Your task to perform on an android device: Show the shopping cart on target.com. Add "dell alienware" to the cart on target.com, then select checkout. Image 0: 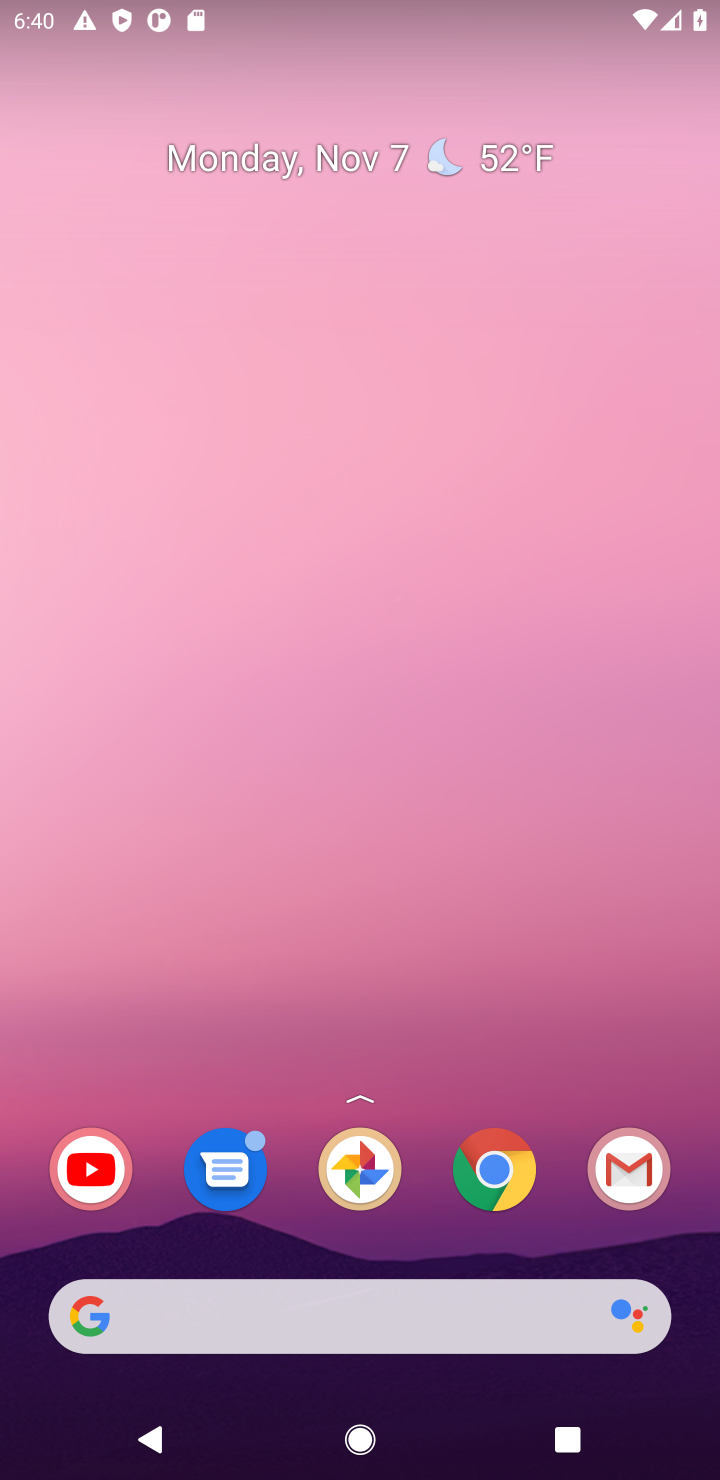
Step 0: click (485, 1162)
Your task to perform on an android device: Show the shopping cart on target.com. Add "dell alienware" to the cart on target.com, then select checkout. Image 1: 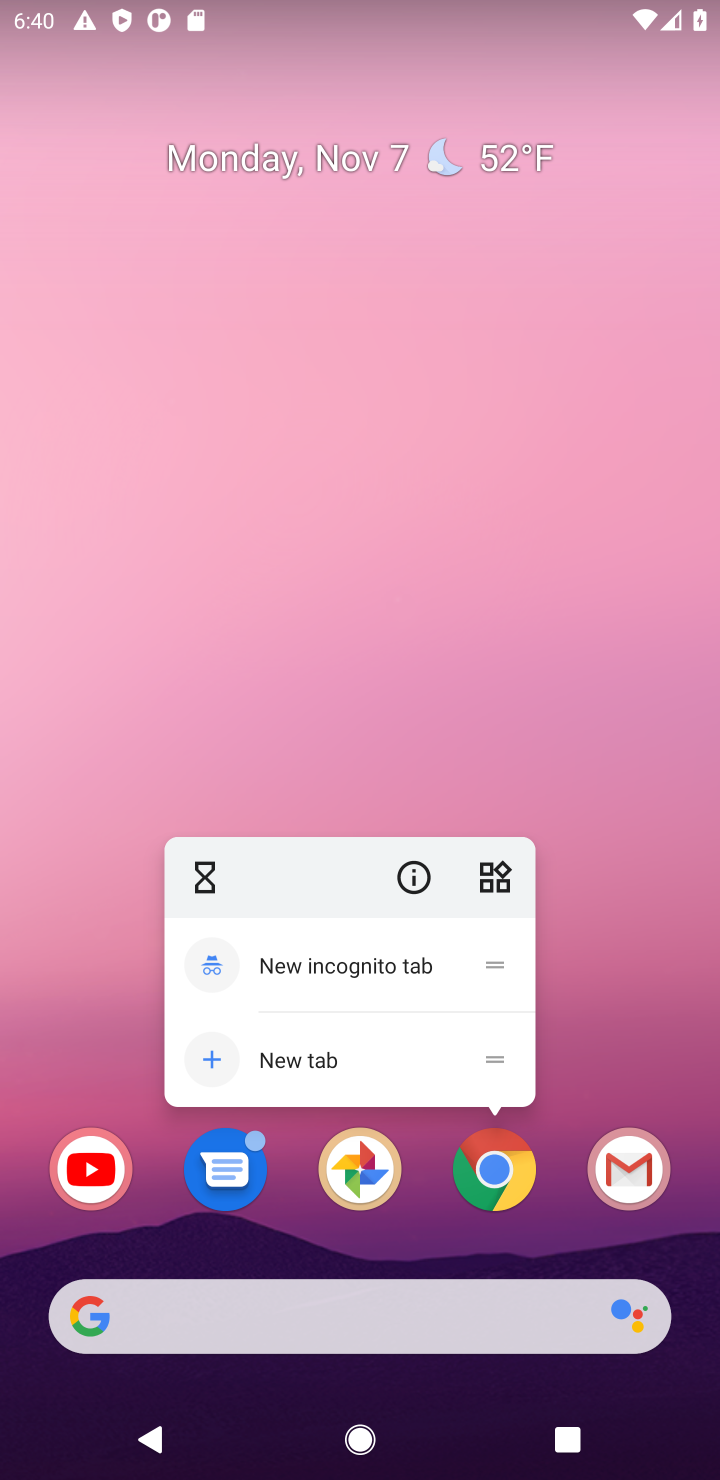
Step 1: click (503, 1163)
Your task to perform on an android device: Show the shopping cart on target.com. Add "dell alienware" to the cart on target.com, then select checkout. Image 2: 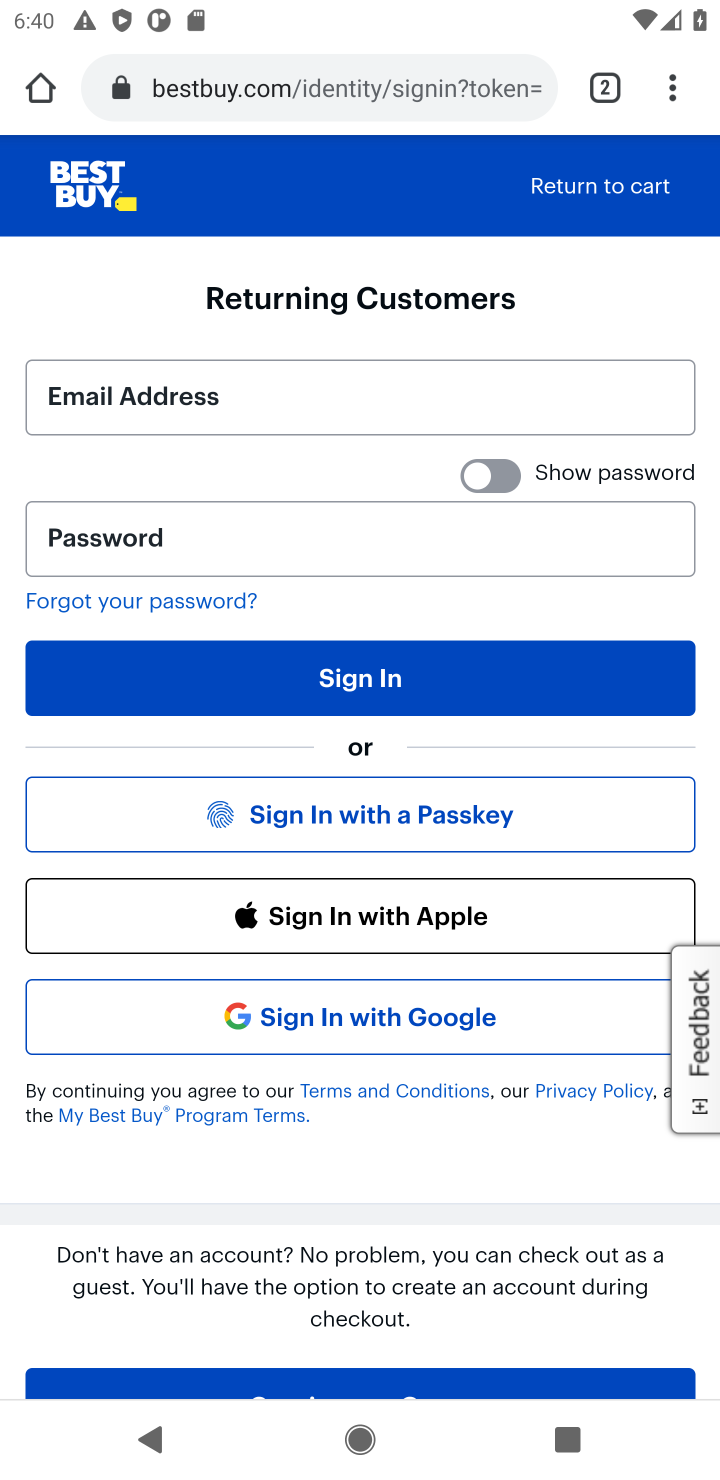
Step 2: click (560, 185)
Your task to perform on an android device: Show the shopping cart on target.com. Add "dell alienware" to the cart on target.com, then select checkout. Image 3: 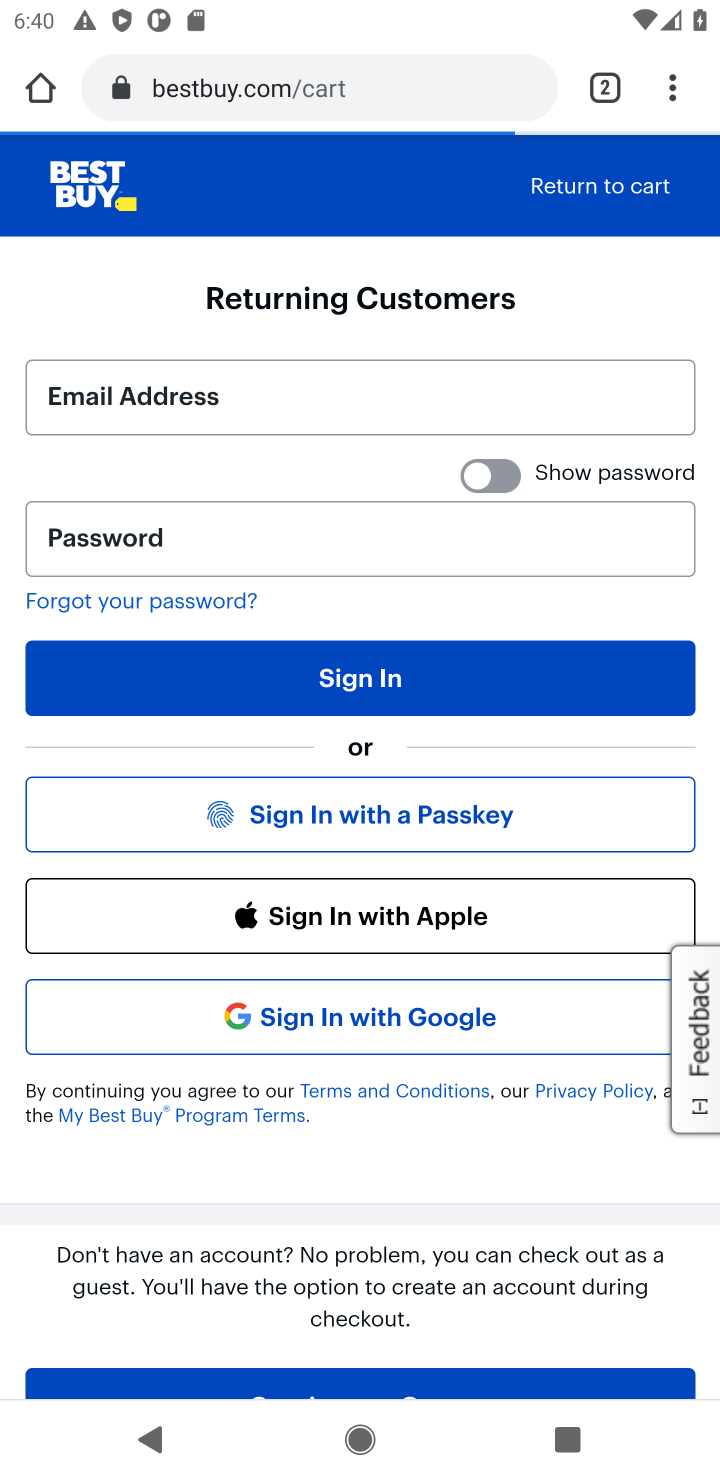
Step 3: click (604, 78)
Your task to perform on an android device: Show the shopping cart on target.com. Add "dell alienware" to the cart on target.com, then select checkout. Image 4: 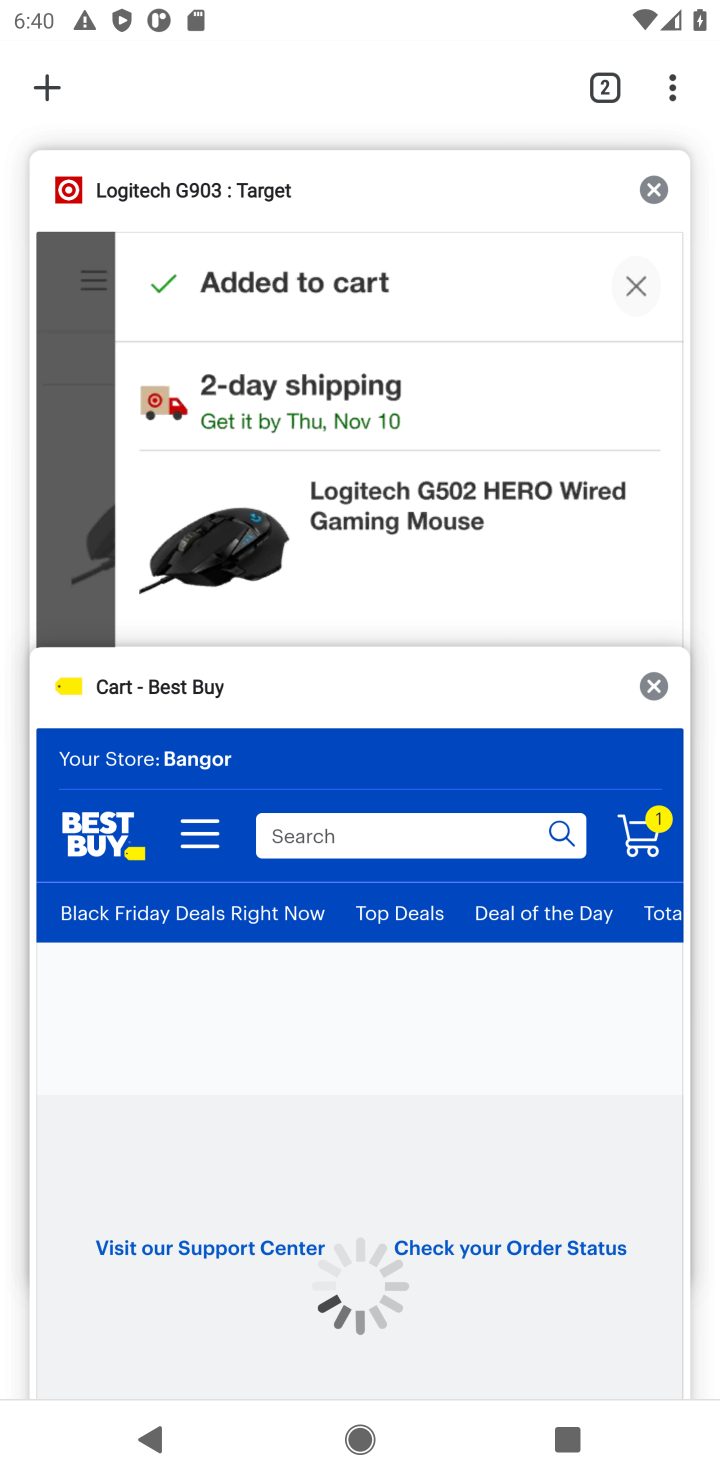
Step 4: click (191, 439)
Your task to perform on an android device: Show the shopping cart on target.com. Add "dell alienware" to the cart on target.com, then select checkout. Image 5: 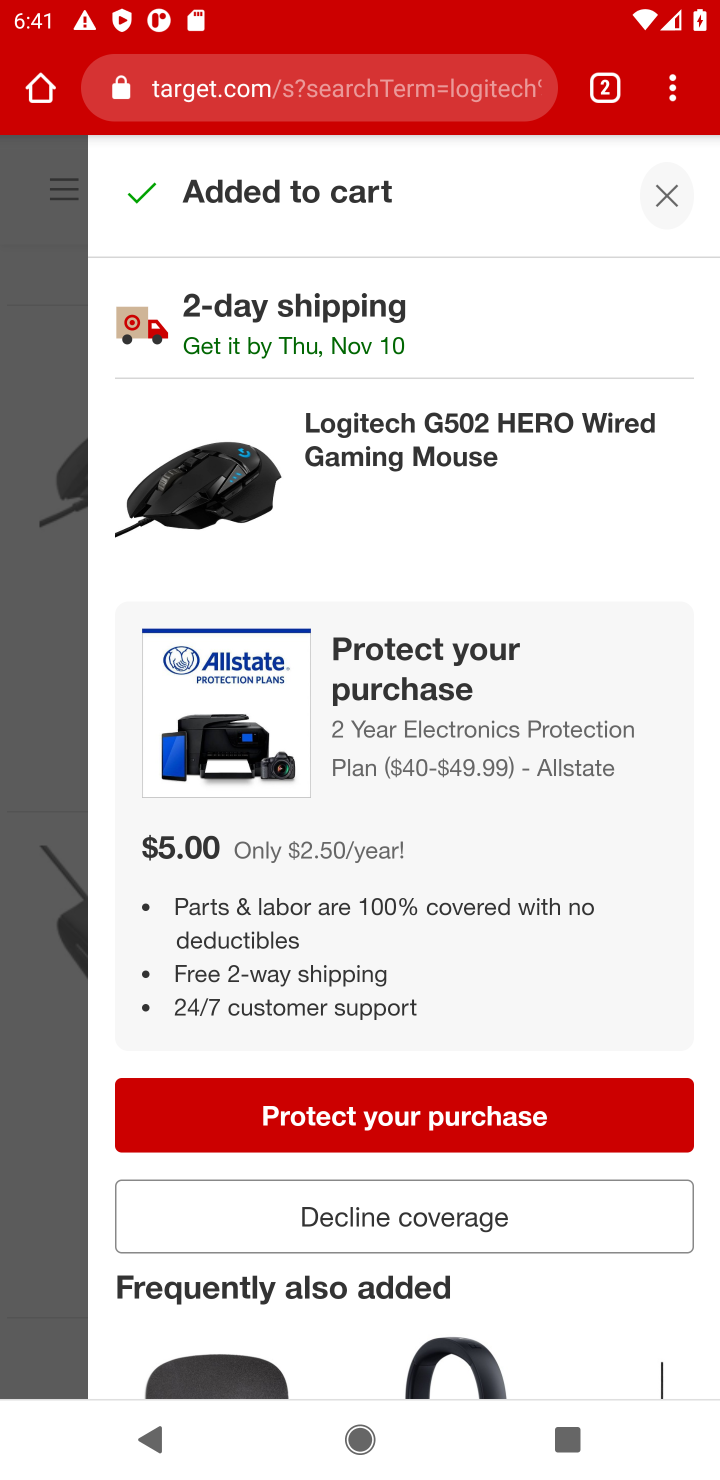
Step 5: click (663, 197)
Your task to perform on an android device: Show the shopping cart on target.com. Add "dell alienware" to the cart on target.com, then select checkout. Image 6: 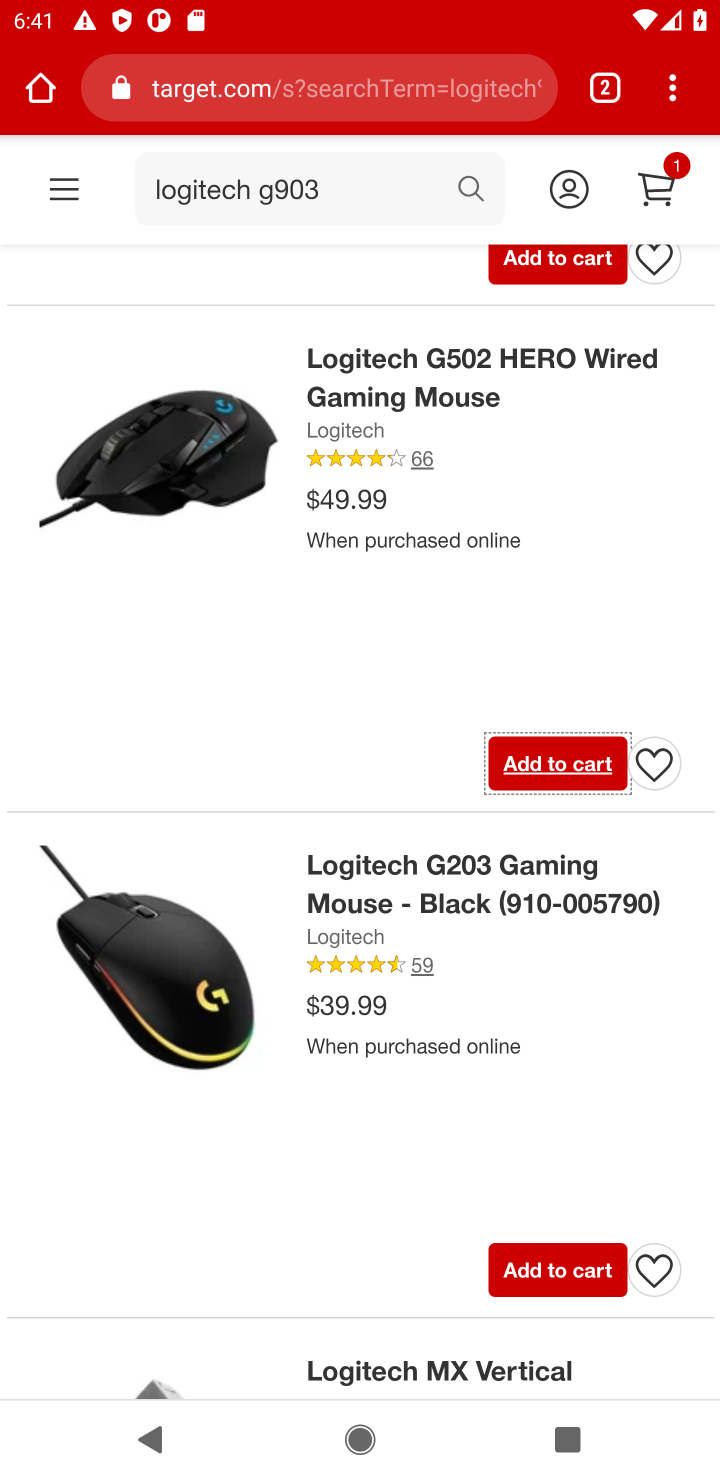
Step 6: click (403, 197)
Your task to perform on an android device: Show the shopping cart on target.com. Add "dell alienware" to the cart on target.com, then select checkout. Image 7: 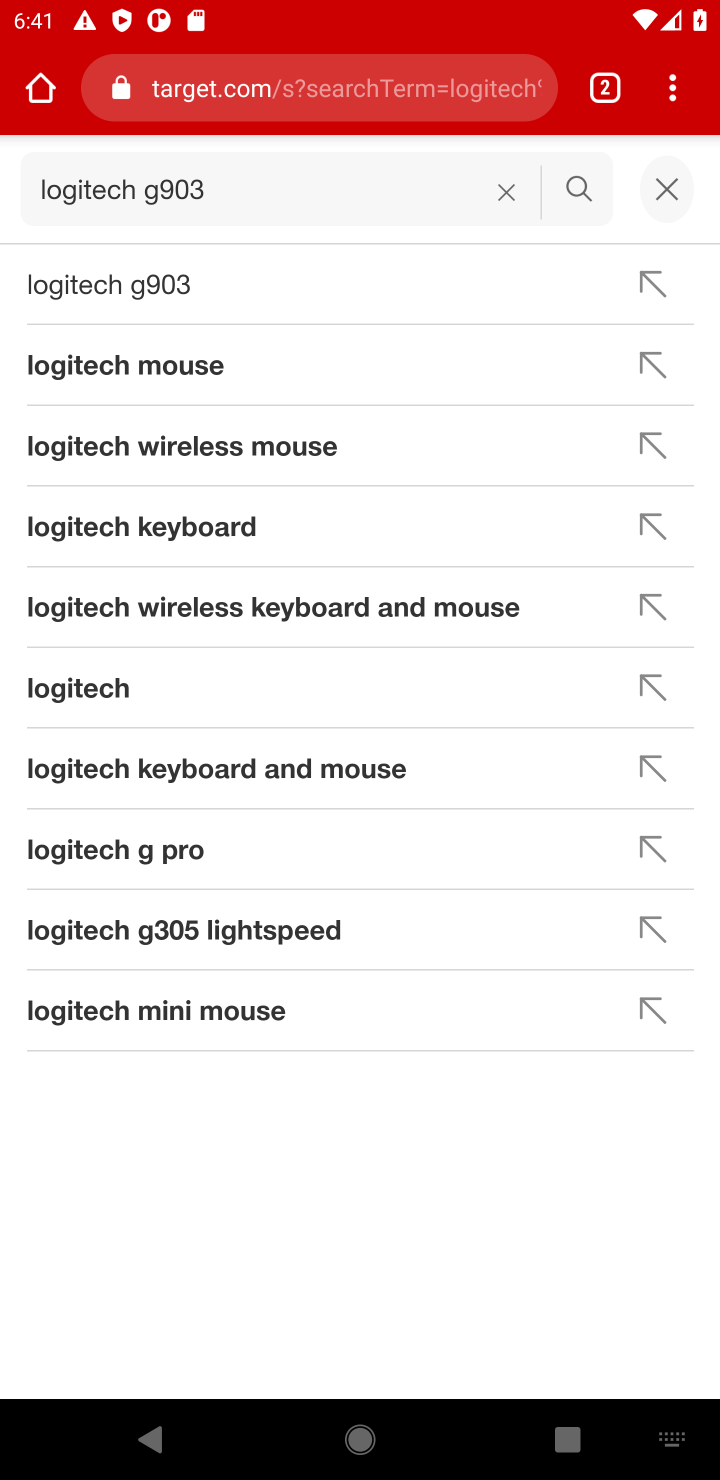
Step 7: click (520, 182)
Your task to perform on an android device: Show the shopping cart on target.com. Add "dell alienware" to the cart on target.com, then select checkout. Image 8: 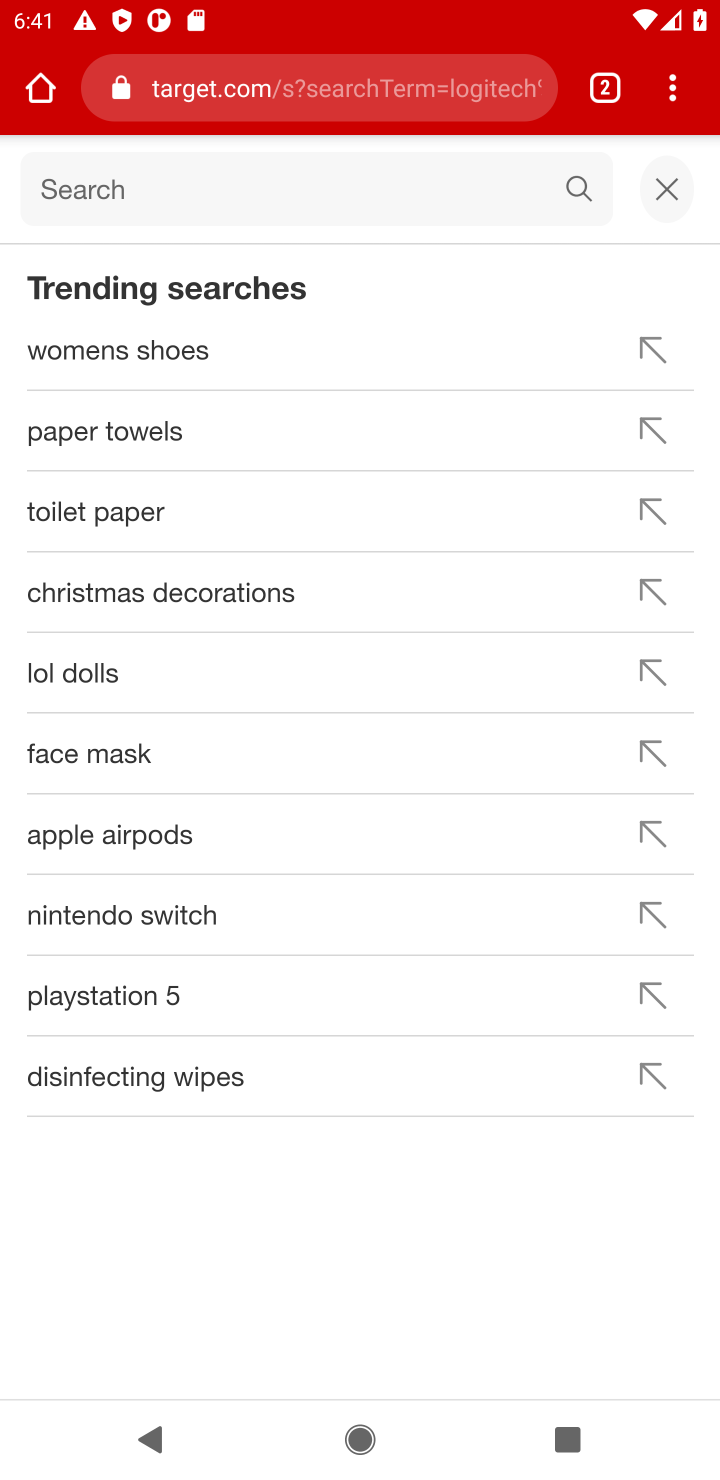
Step 8: click (133, 191)
Your task to perform on an android device: Show the shopping cart on target.com. Add "dell alienware" to the cart on target.com, then select checkout. Image 9: 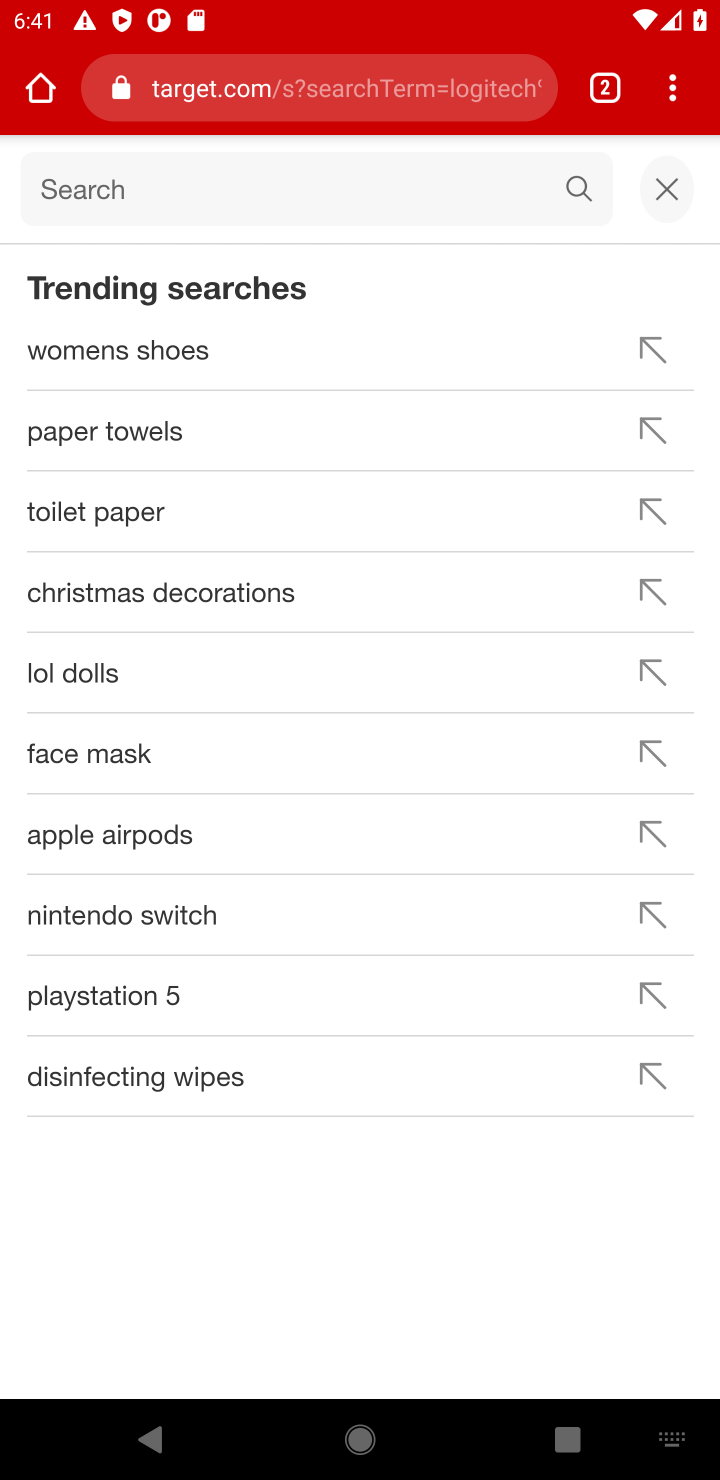
Step 9: type "dell alienware"
Your task to perform on an android device: Show the shopping cart on target.com. Add "dell alienware" to the cart on target.com, then select checkout. Image 10: 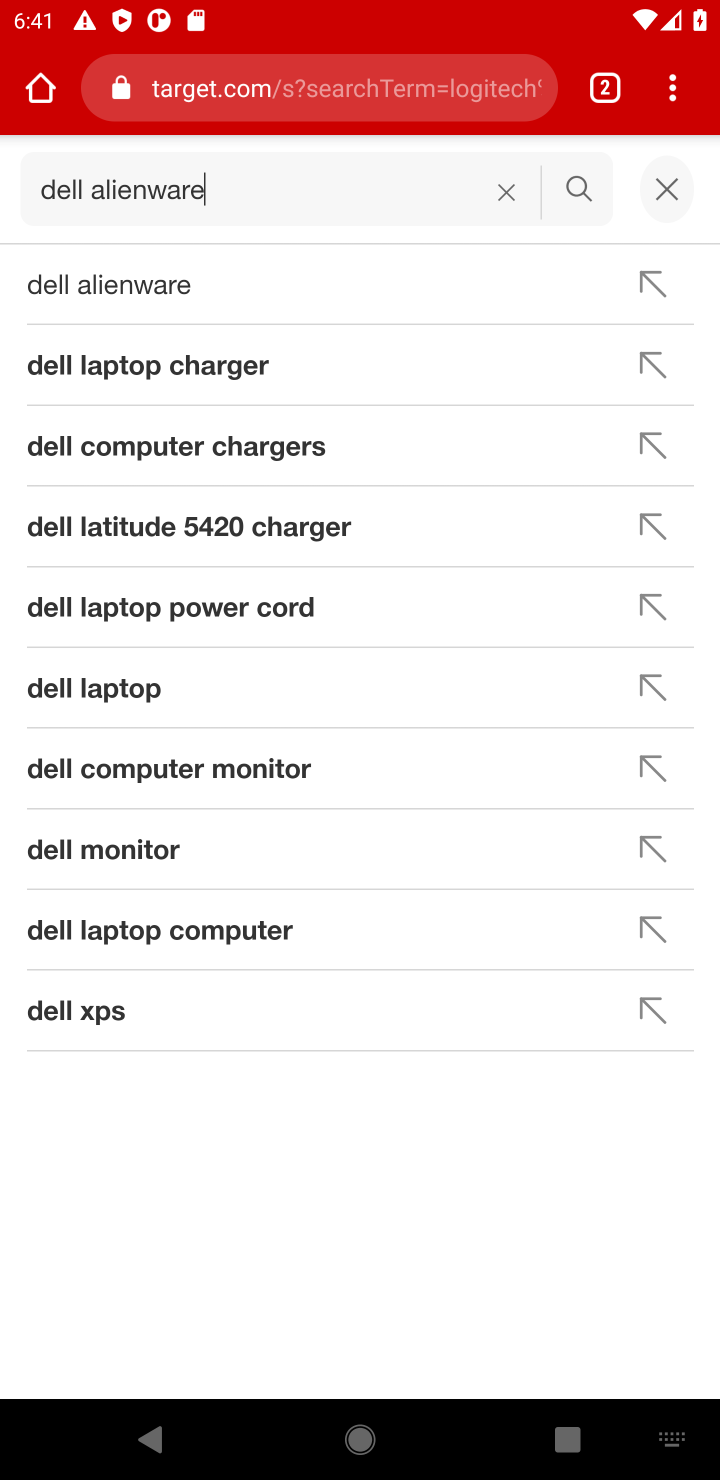
Step 10: click (171, 283)
Your task to perform on an android device: Show the shopping cart on target.com. Add "dell alienware" to the cart on target.com, then select checkout. Image 11: 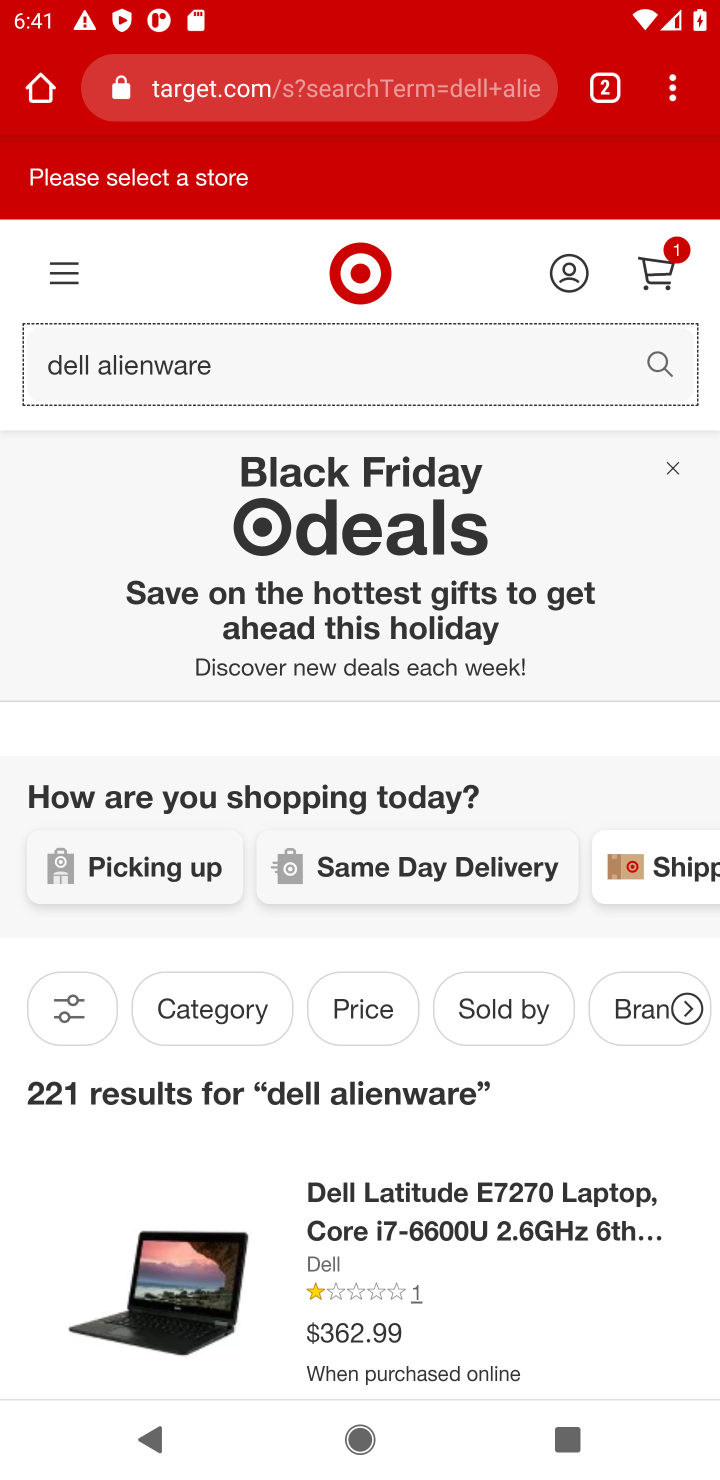
Step 11: drag from (496, 1270) to (513, 566)
Your task to perform on an android device: Show the shopping cart on target.com. Add "dell alienware" to the cart on target.com, then select checkout. Image 12: 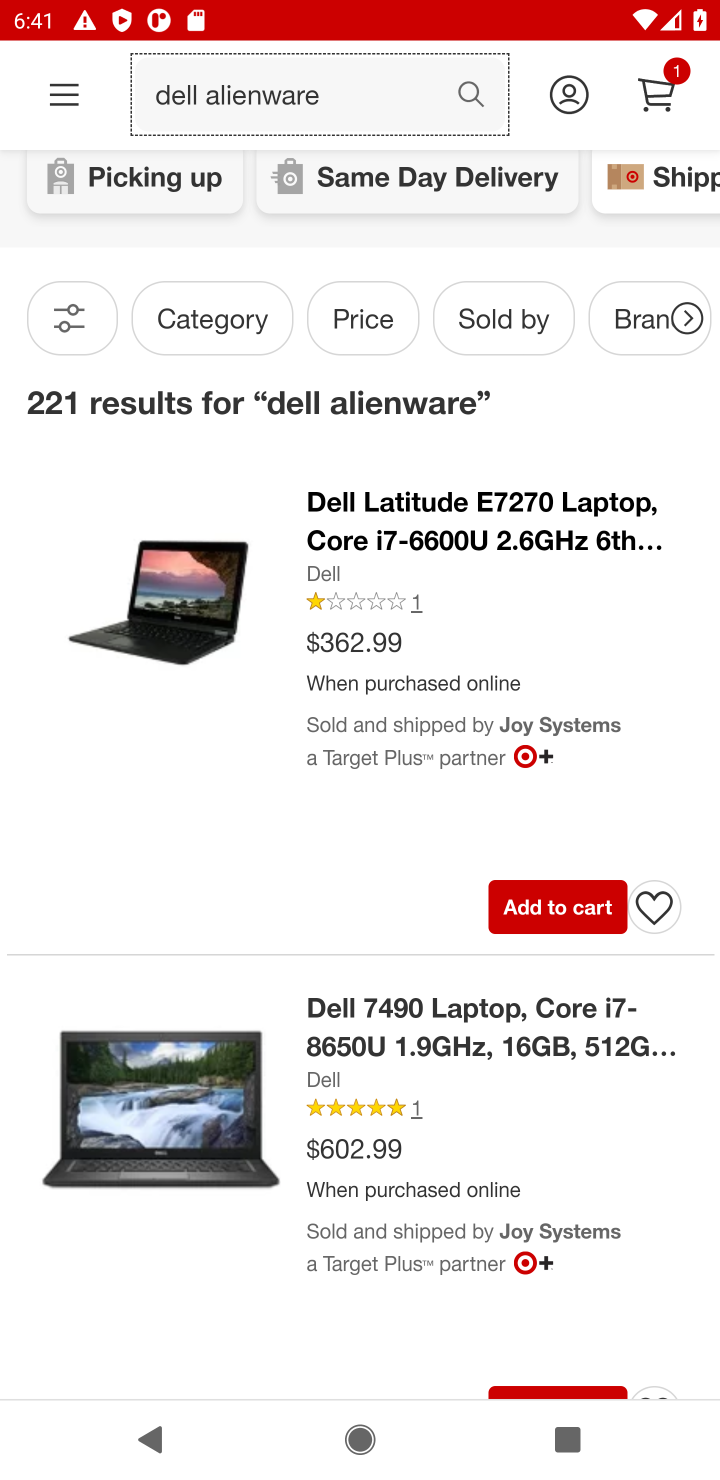
Step 12: drag from (562, 1172) to (462, 499)
Your task to perform on an android device: Show the shopping cart on target.com. Add "dell alienware" to the cart on target.com, then select checkout. Image 13: 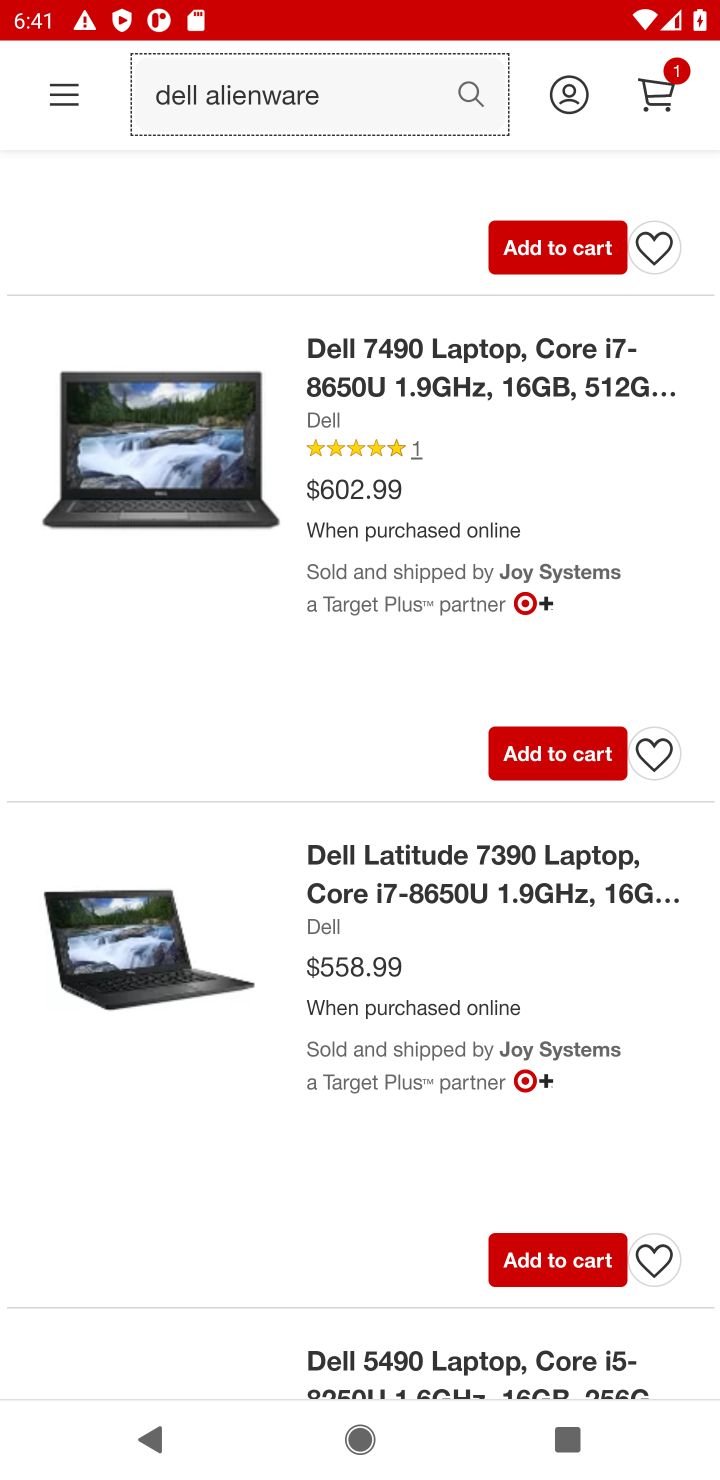
Step 13: click (540, 749)
Your task to perform on an android device: Show the shopping cart on target.com. Add "dell alienware" to the cart on target.com, then select checkout. Image 14: 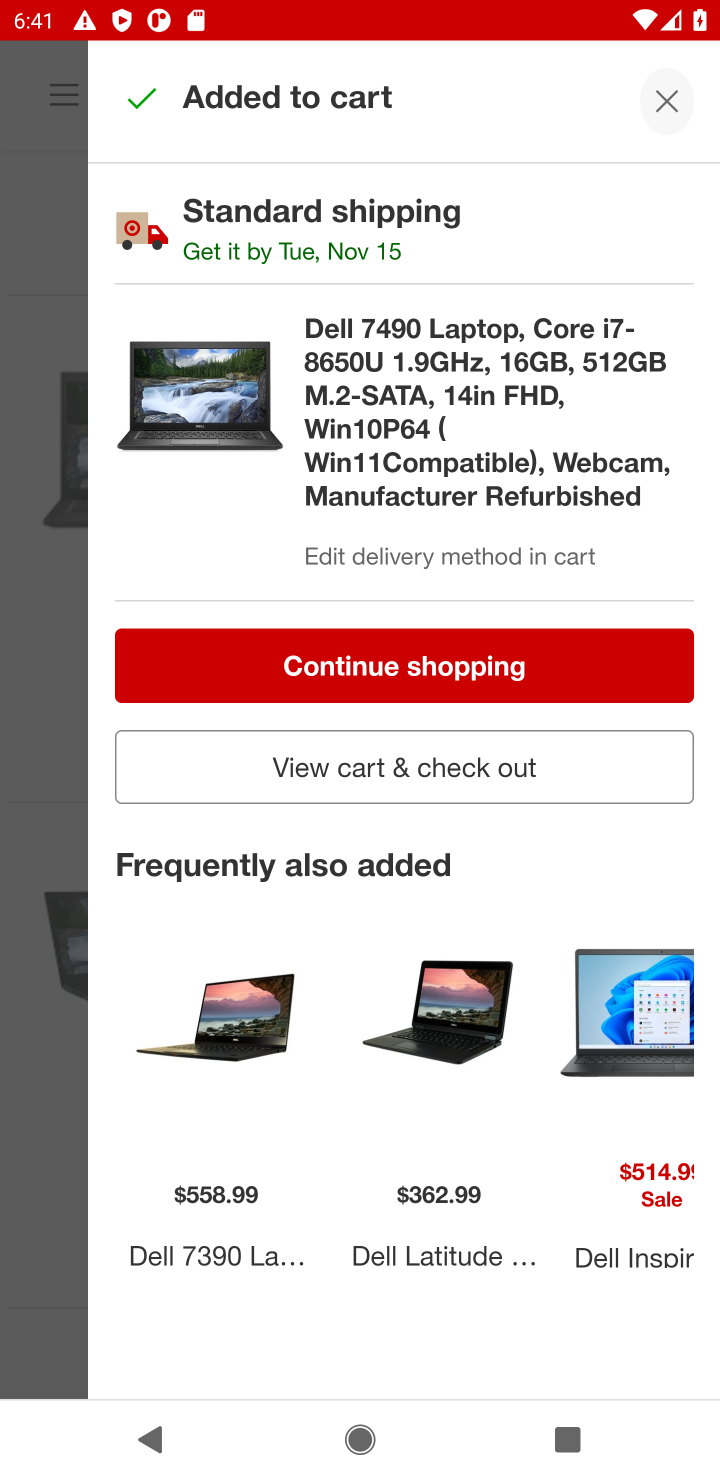
Step 14: task complete